Your task to perform on an android device: manage bookmarks in the chrome app Image 0: 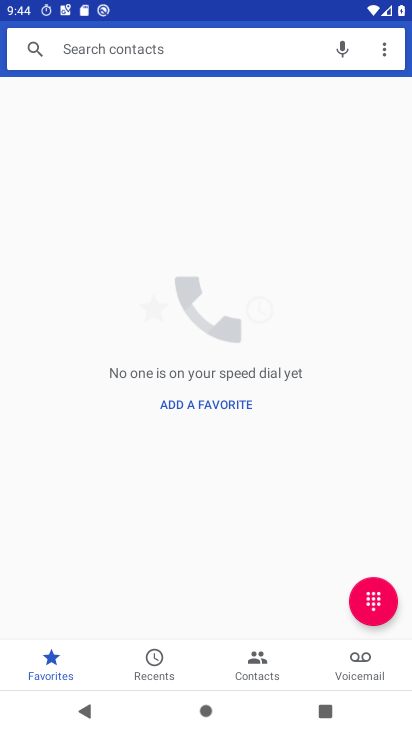
Step 0: press home button
Your task to perform on an android device: manage bookmarks in the chrome app Image 1: 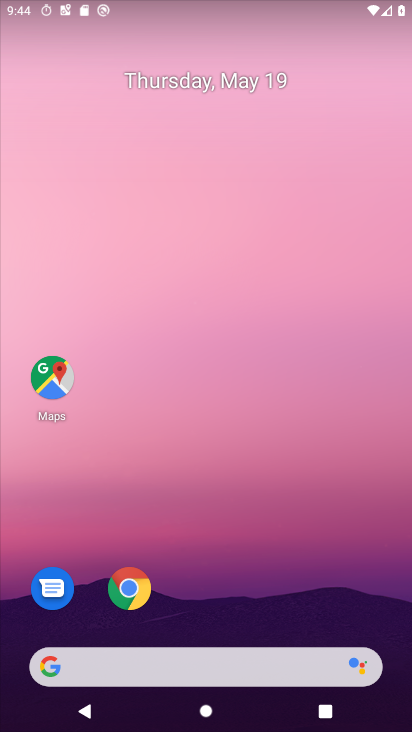
Step 1: click (129, 596)
Your task to perform on an android device: manage bookmarks in the chrome app Image 2: 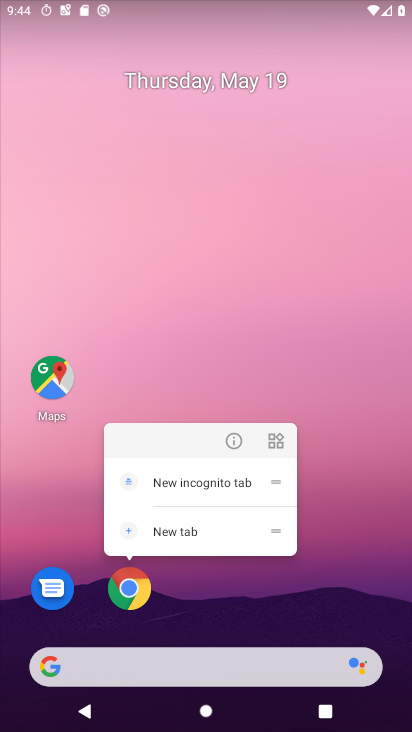
Step 2: click (130, 589)
Your task to perform on an android device: manage bookmarks in the chrome app Image 3: 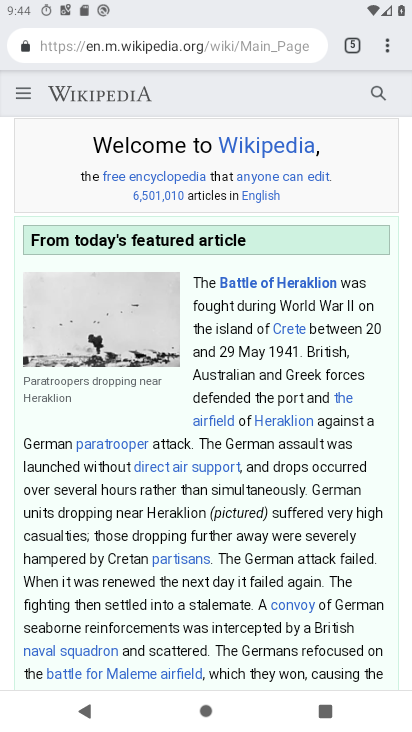
Step 3: task complete